Your task to perform on an android device: Open eBay Image 0: 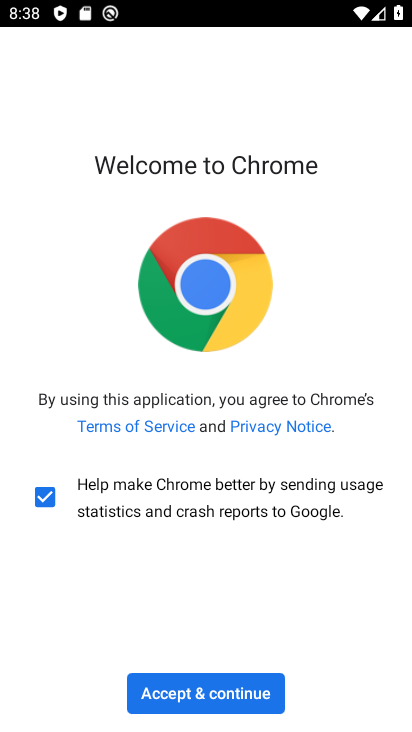
Step 0: click (215, 691)
Your task to perform on an android device: Open eBay Image 1: 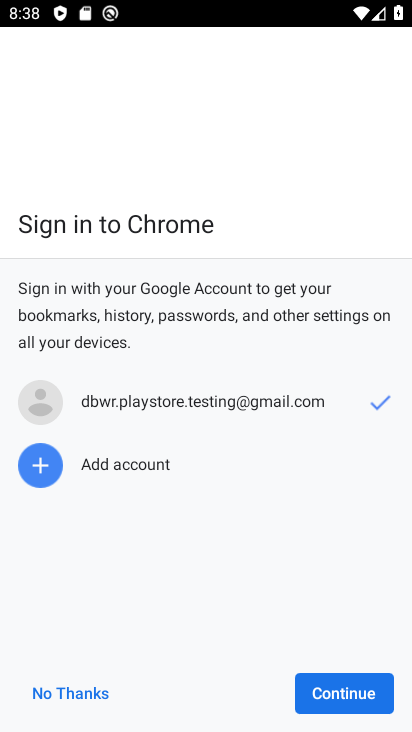
Step 1: click (334, 675)
Your task to perform on an android device: Open eBay Image 2: 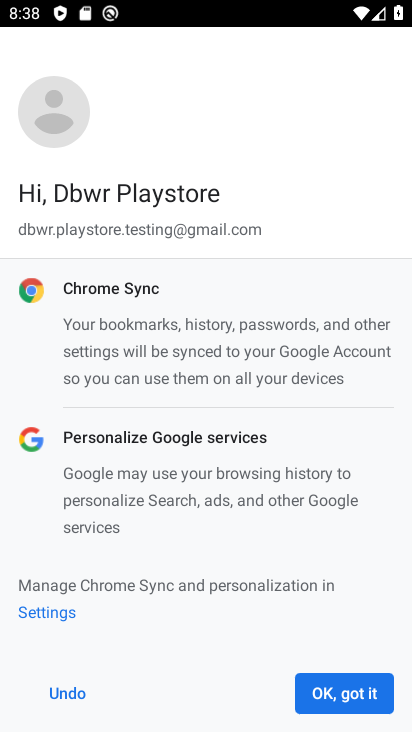
Step 2: click (334, 675)
Your task to perform on an android device: Open eBay Image 3: 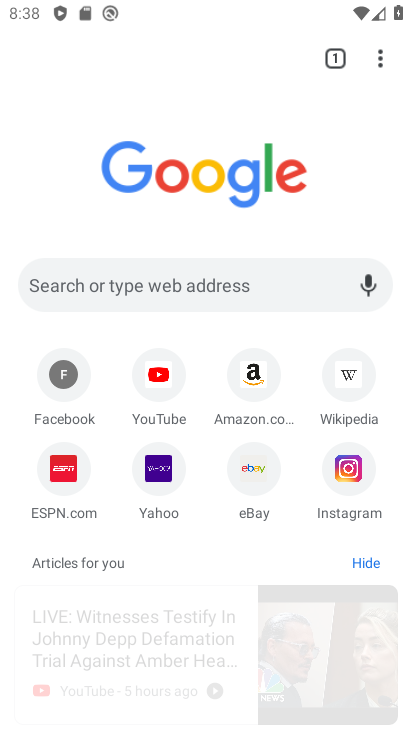
Step 3: click (237, 478)
Your task to perform on an android device: Open eBay Image 4: 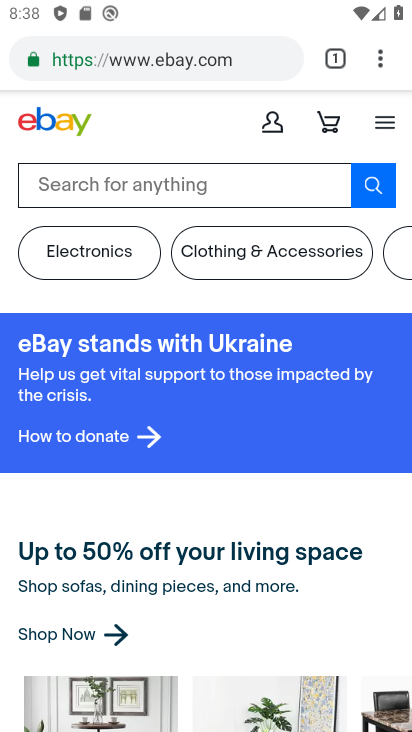
Step 4: task complete